Your task to perform on an android device: Add "usb-c" to the cart on walmart, then select checkout. Image 0: 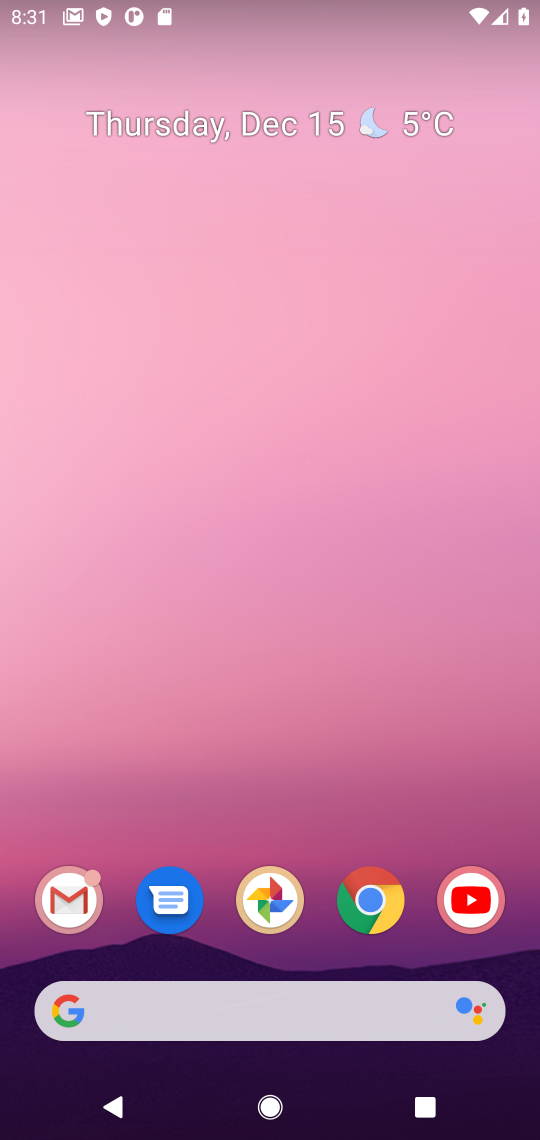
Step 0: click (352, 906)
Your task to perform on an android device: Add "usb-c" to the cart on walmart, then select checkout. Image 1: 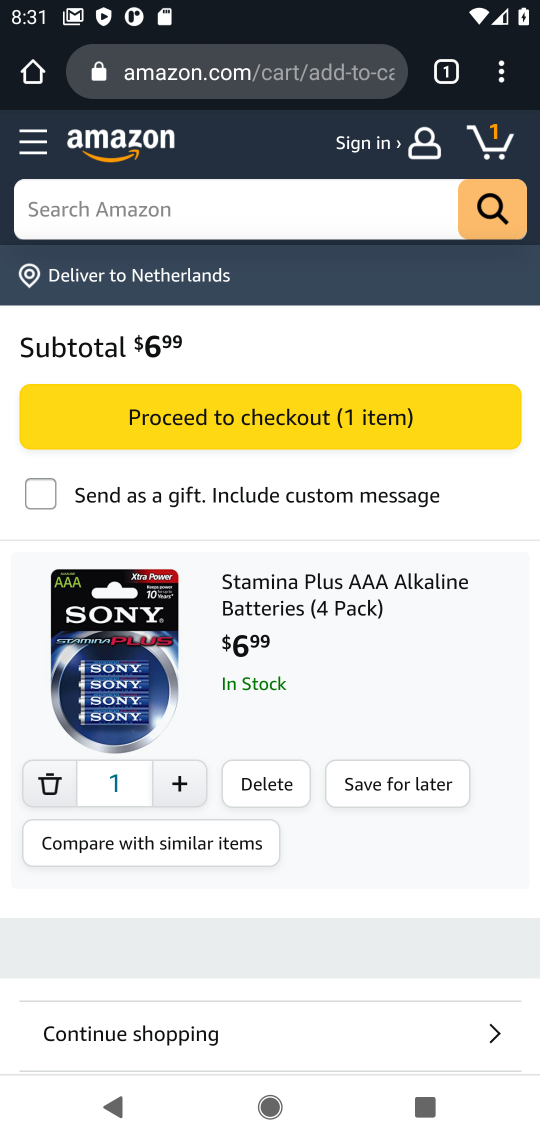
Step 1: click (137, 66)
Your task to perform on an android device: Add "usb-c" to the cart on walmart, then select checkout. Image 2: 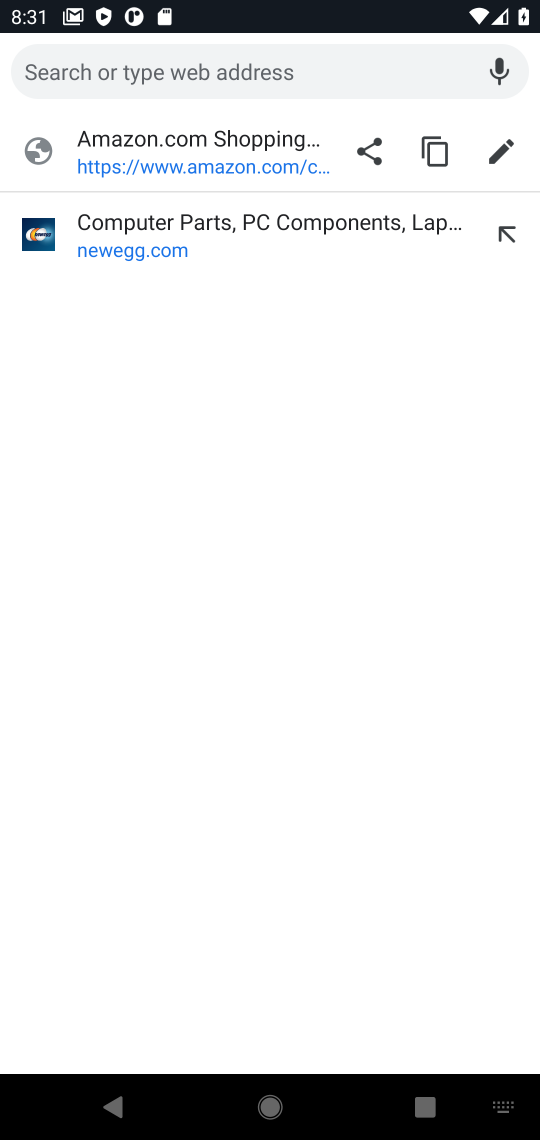
Step 2: type "walmart"
Your task to perform on an android device: Add "usb-c" to the cart on walmart, then select checkout. Image 3: 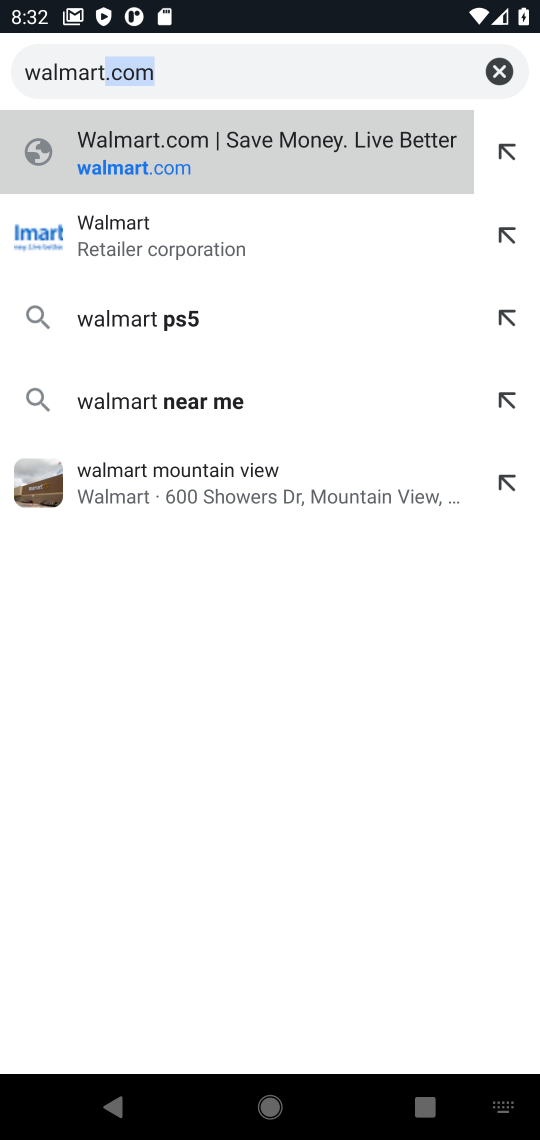
Step 3: click (176, 144)
Your task to perform on an android device: Add "usb-c" to the cart on walmart, then select checkout. Image 4: 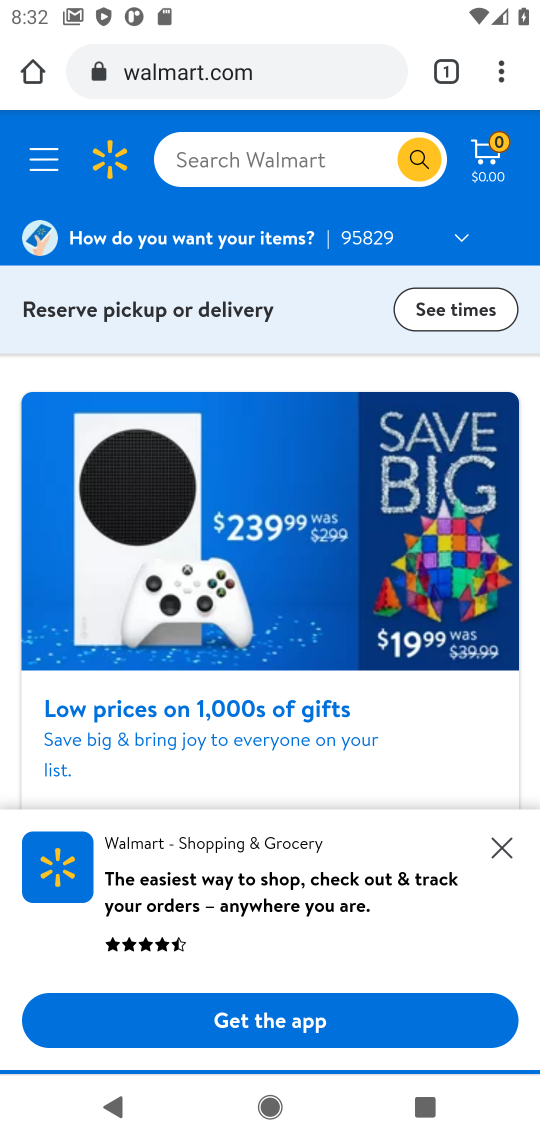
Step 4: click (218, 169)
Your task to perform on an android device: Add "usb-c" to the cart on walmart, then select checkout. Image 5: 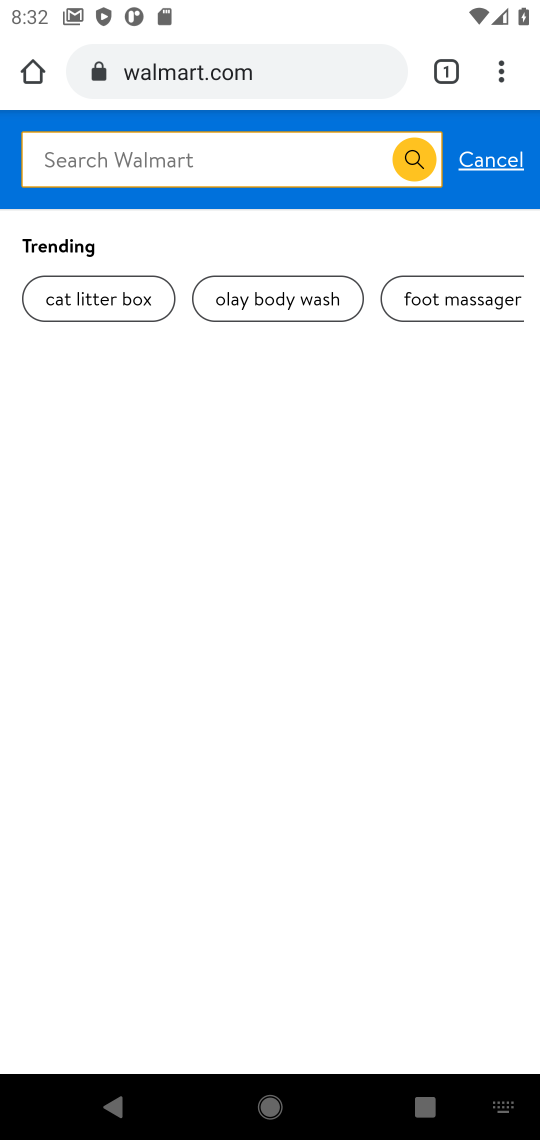
Step 5: type "usb-c"
Your task to perform on an android device: Add "usb-c" to the cart on walmart, then select checkout. Image 6: 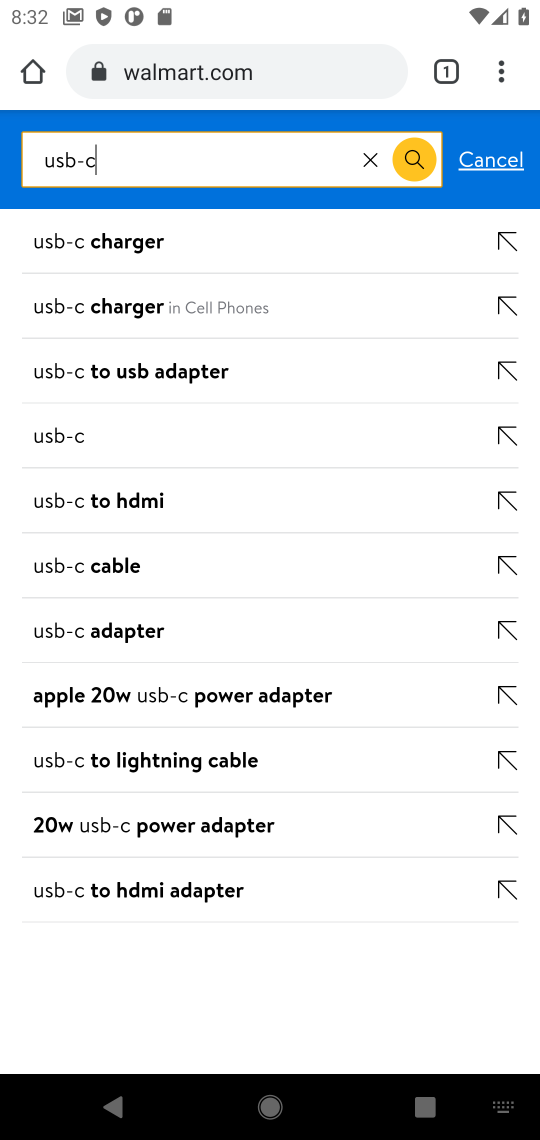
Step 6: click (422, 158)
Your task to perform on an android device: Add "usb-c" to the cart on walmart, then select checkout. Image 7: 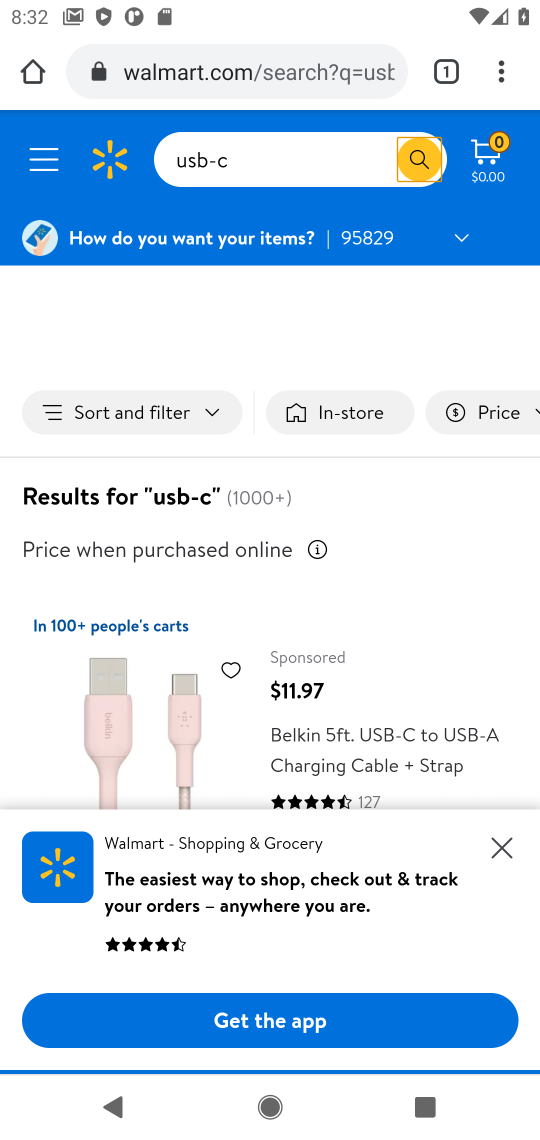
Step 7: drag from (355, 719) to (369, 462)
Your task to perform on an android device: Add "usb-c" to the cart on walmart, then select checkout. Image 8: 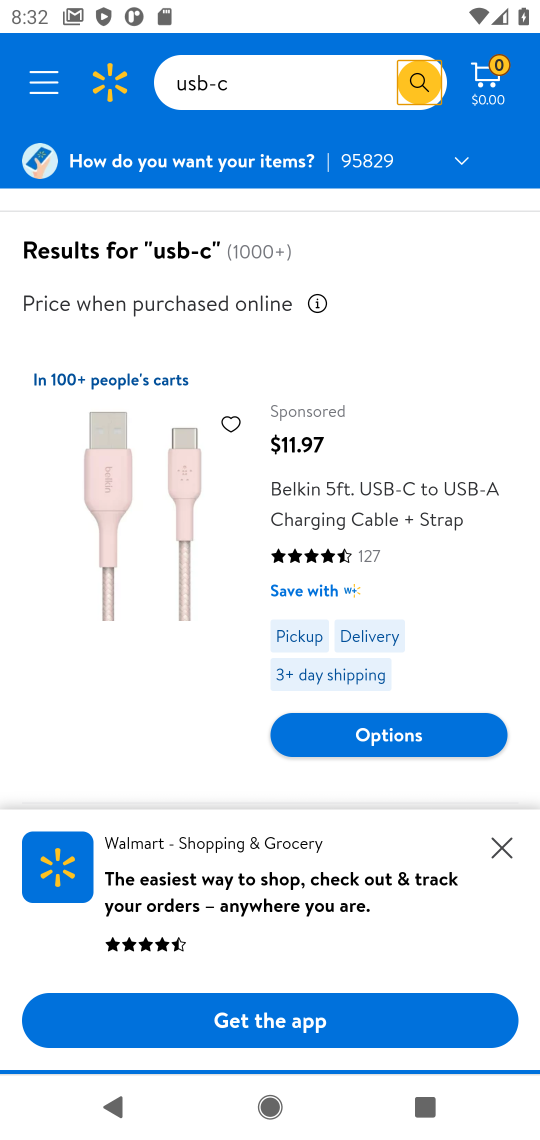
Step 8: click (120, 538)
Your task to perform on an android device: Add "usb-c" to the cart on walmart, then select checkout. Image 9: 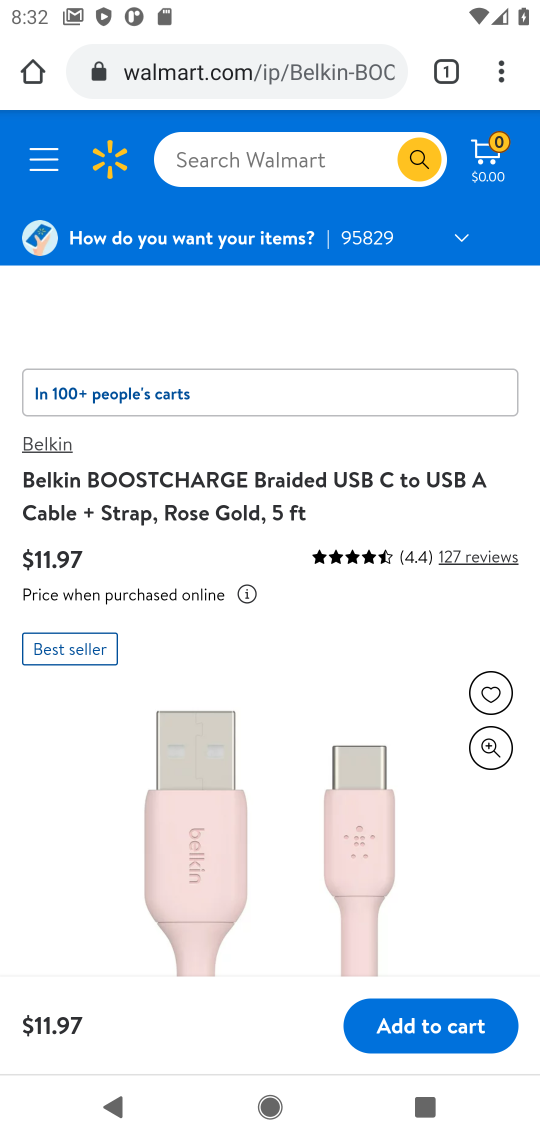
Step 9: click (450, 1029)
Your task to perform on an android device: Add "usb-c" to the cart on walmart, then select checkout. Image 10: 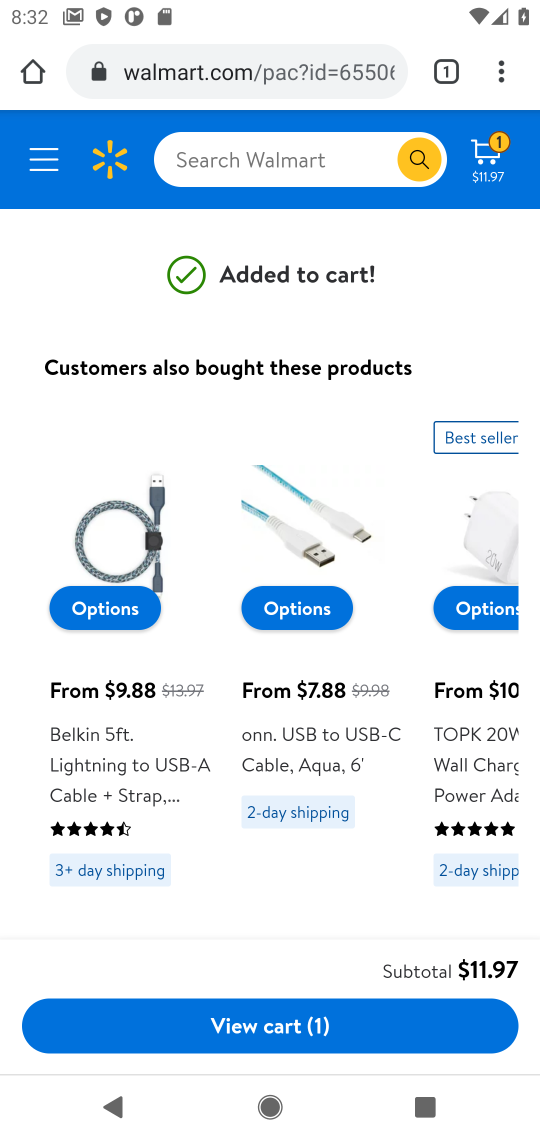
Step 10: click (317, 1029)
Your task to perform on an android device: Add "usb-c" to the cart on walmart, then select checkout. Image 11: 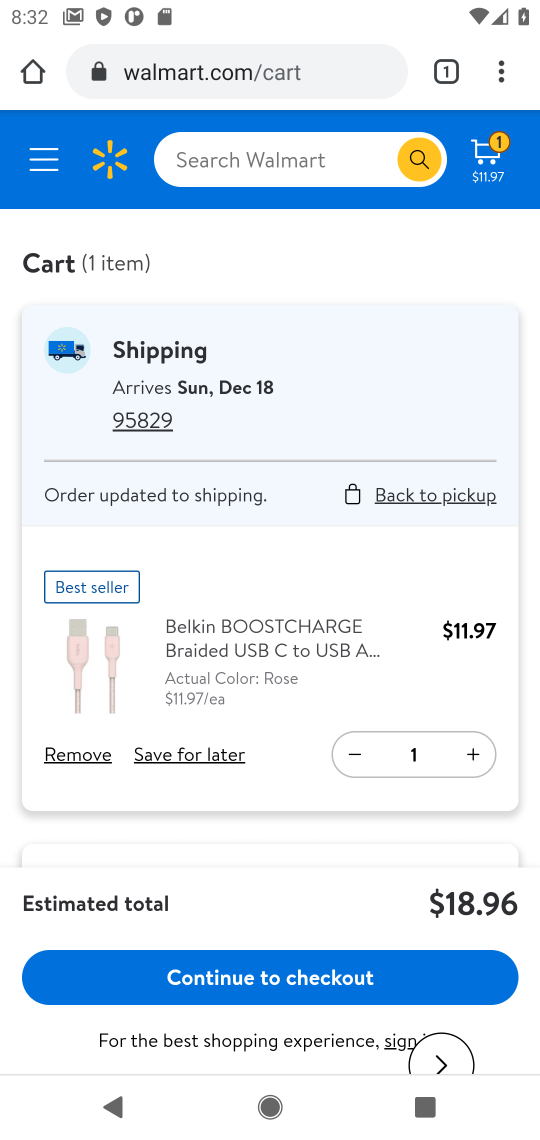
Step 11: click (289, 976)
Your task to perform on an android device: Add "usb-c" to the cart on walmart, then select checkout. Image 12: 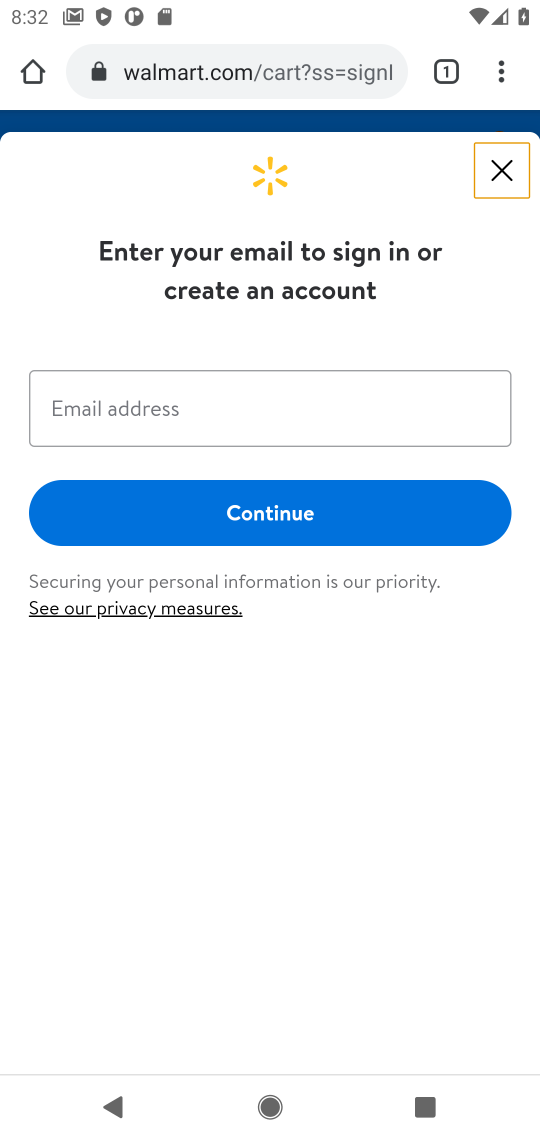
Step 12: task complete